Your task to perform on an android device: uninstall "Google Play Games" Image 0: 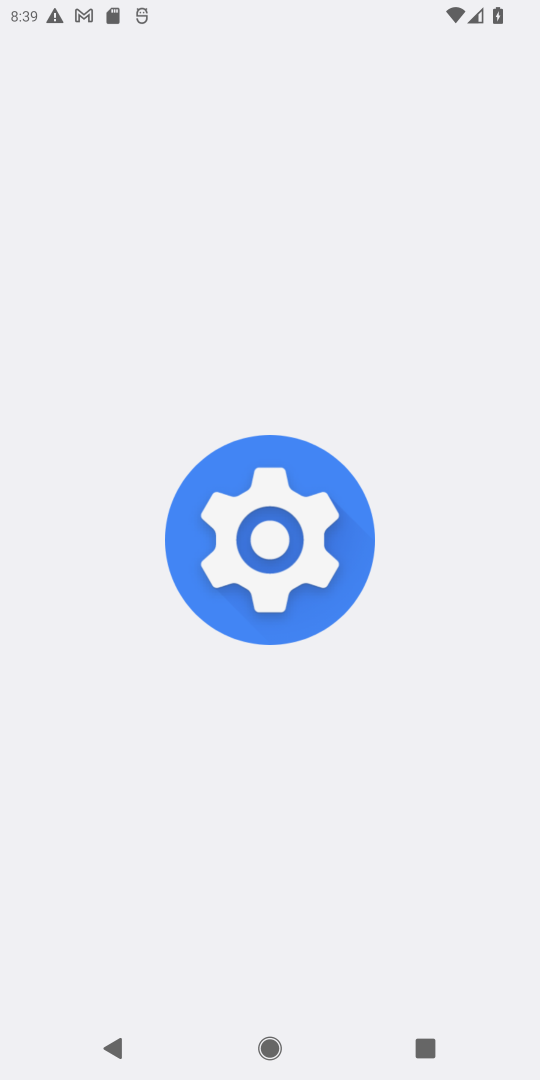
Step 0: press home button
Your task to perform on an android device: uninstall "Google Play Games" Image 1: 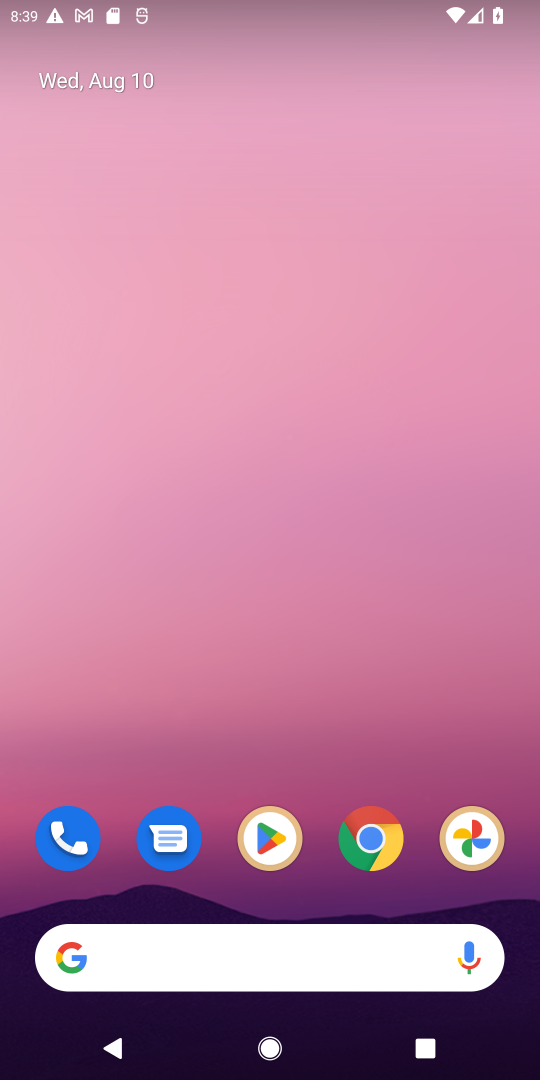
Step 1: click (267, 835)
Your task to perform on an android device: uninstall "Google Play Games" Image 2: 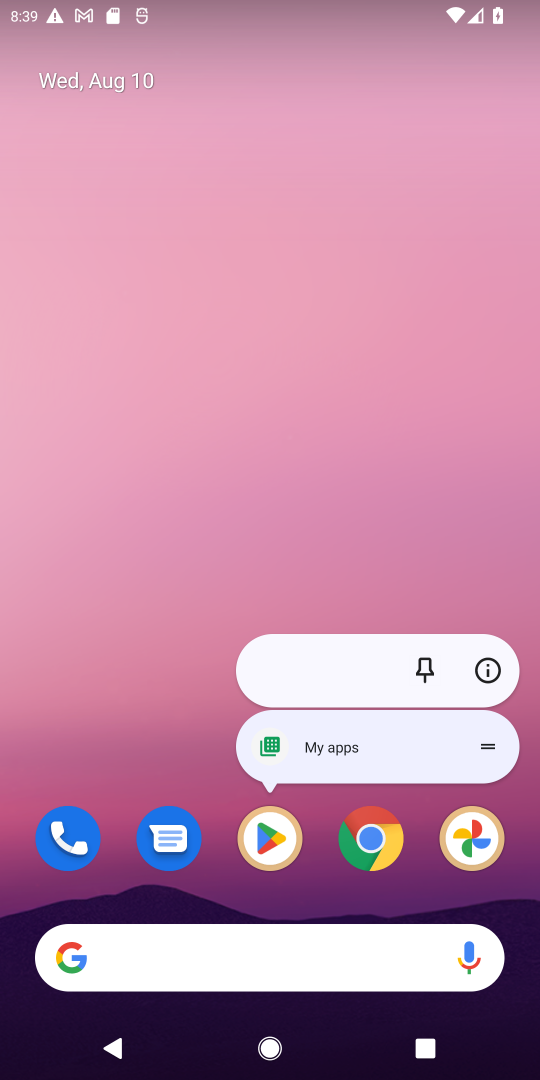
Step 2: click (267, 835)
Your task to perform on an android device: uninstall "Google Play Games" Image 3: 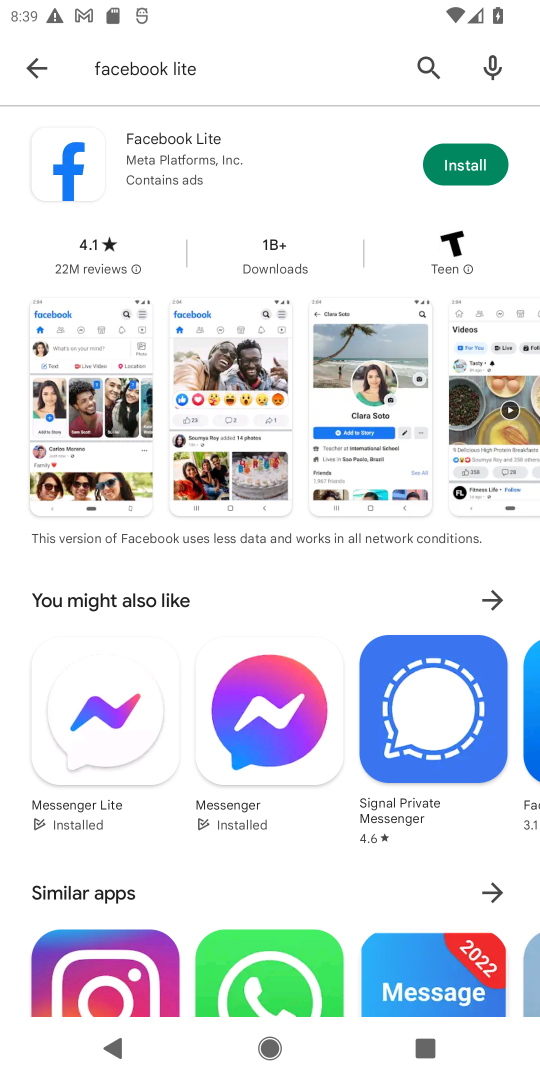
Step 3: click (426, 69)
Your task to perform on an android device: uninstall "Google Play Games" Image 4: 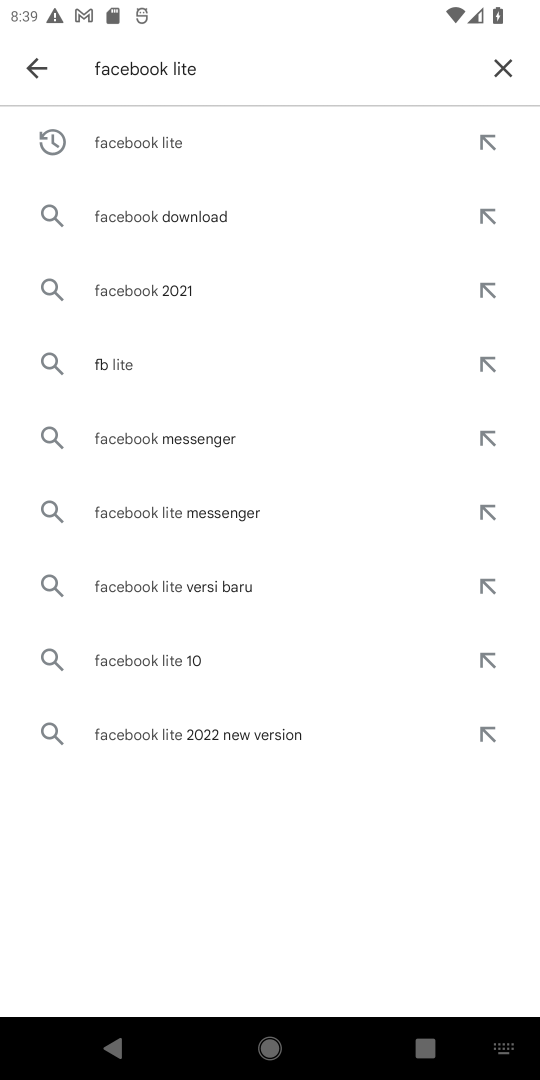
Step 4: click (503, 76)
Your task to perform on an android device: uninstall "Google Play Games" Image 5: 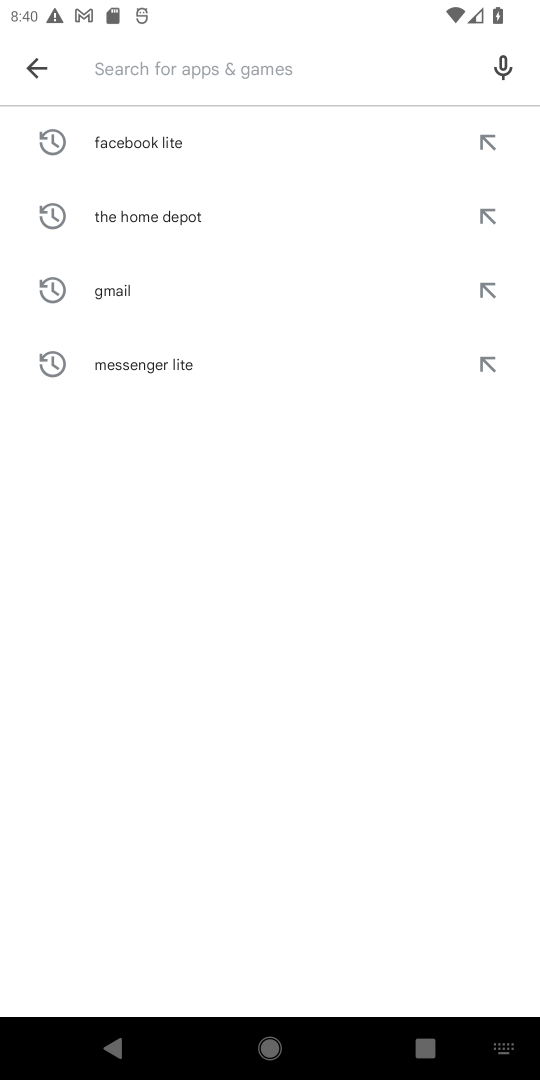
Step 5: type "Google Play Games"
Your task to perform on an android device: uninstall "Google Play Games" Image 6: 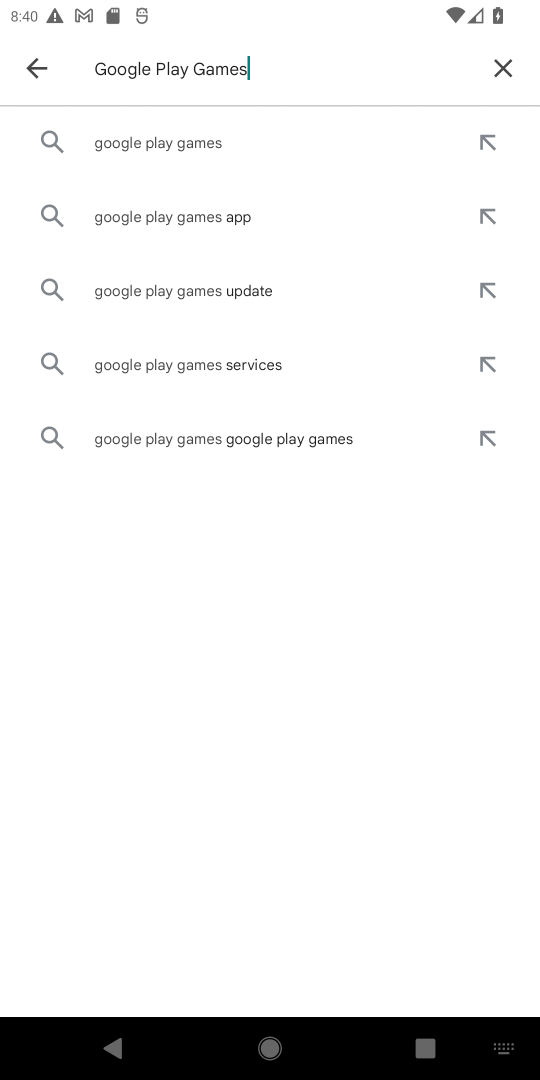
Step 6: click (230, 141)
Your task to perform on an android device: uninstall "Google Play Games" Image 7: 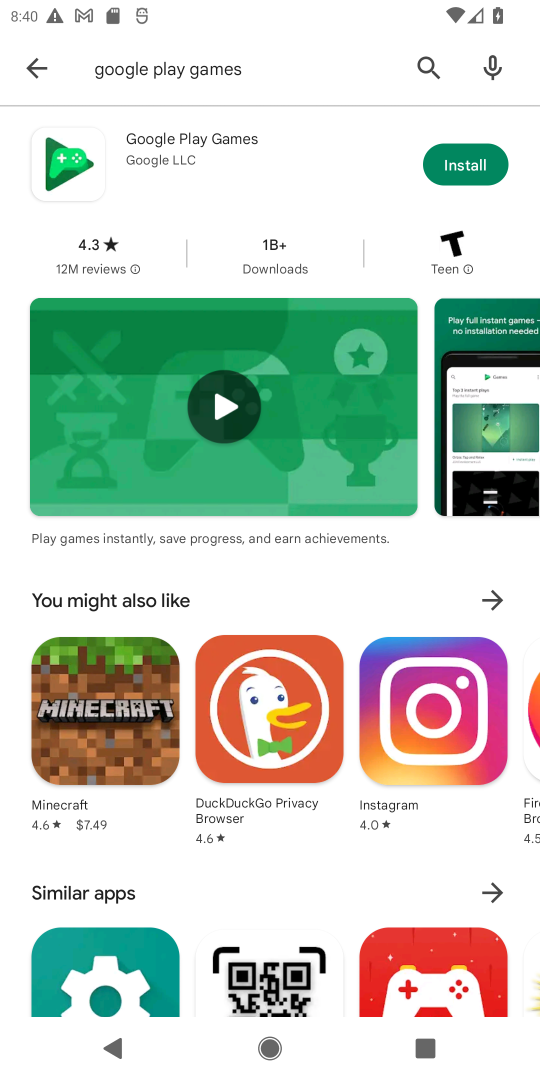
Step 7: task complete